Your task to perform on an android device: set the timer Image 0: 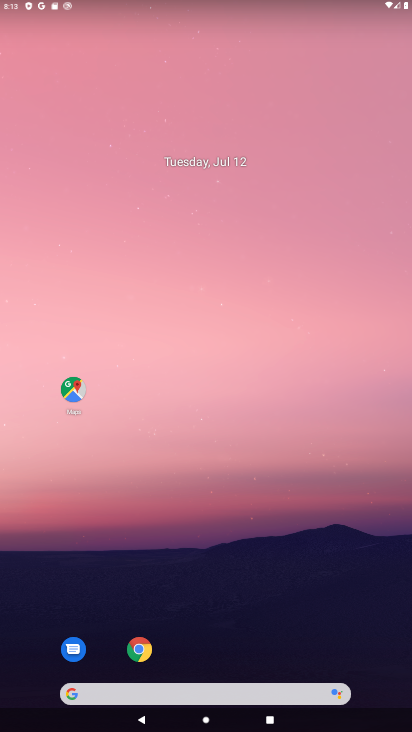
Step 0: drag from (236, 657) to (180, 254)
Your task to perform on an android device: set the timer Image 1: 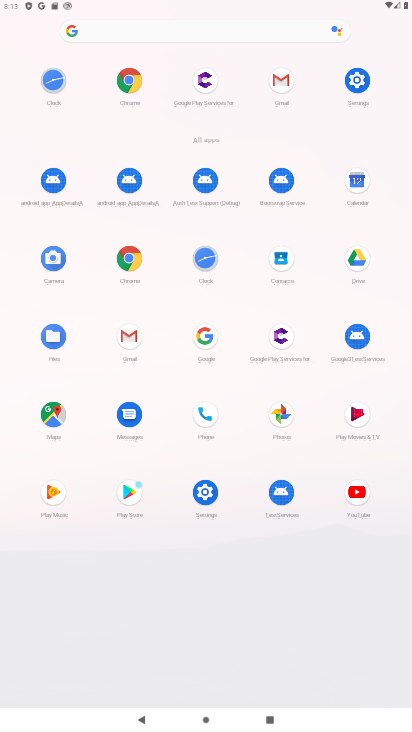
Step 1: click (198, 269)
Your task to perform on an android device: set the timer Image 2: 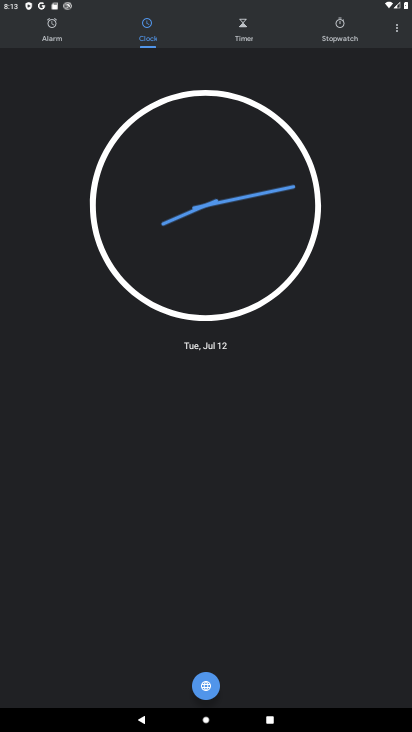
Step 2: click (249, 20)
Your task to perform on an android device: set the timer Image 3: 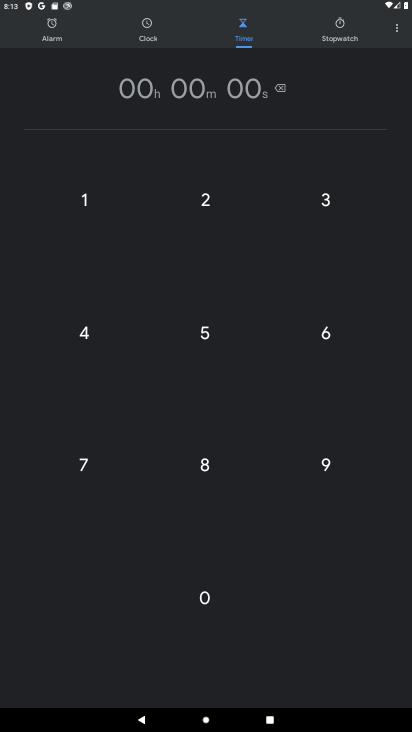
Step 3: task complete